Your task to perform on an android device: all mails in gmail Image 0: 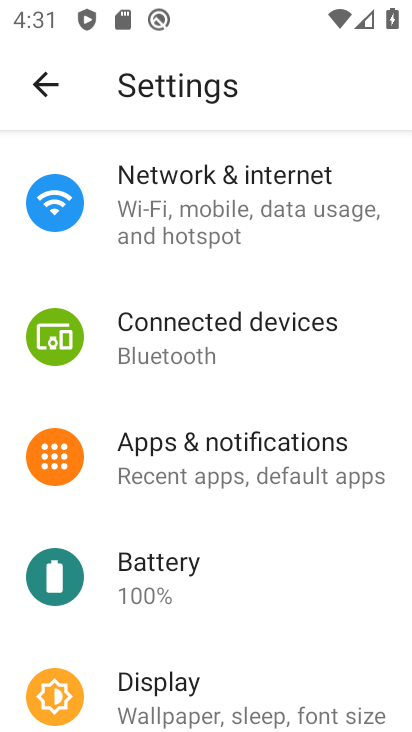
Step 0: press back button
Your task to perform on an android device: all mails in gmail Image 1: 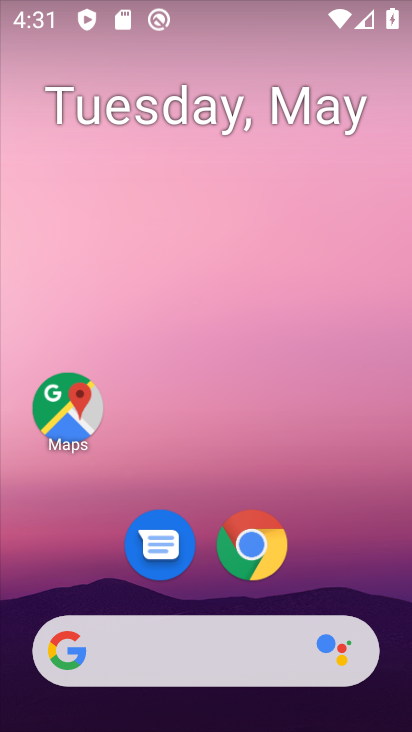
Step 1: drag from (341, 485) to (230, 1)
Your task to perform on an android device: all mails in gmail Image 2: 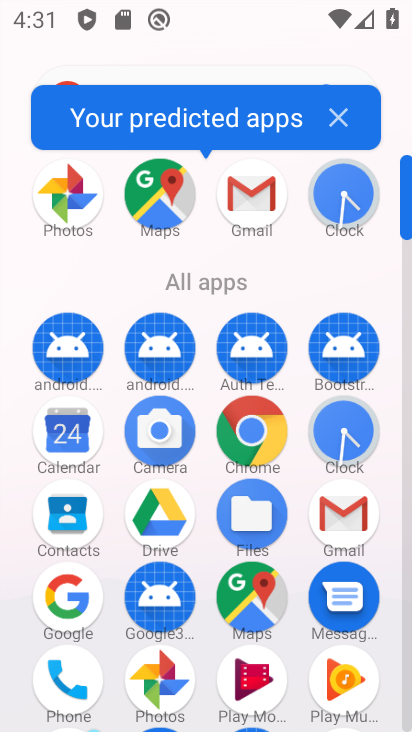
Step 2: click (257, 187)
Your task to perform on an android device: all mails in gmail Image 3: 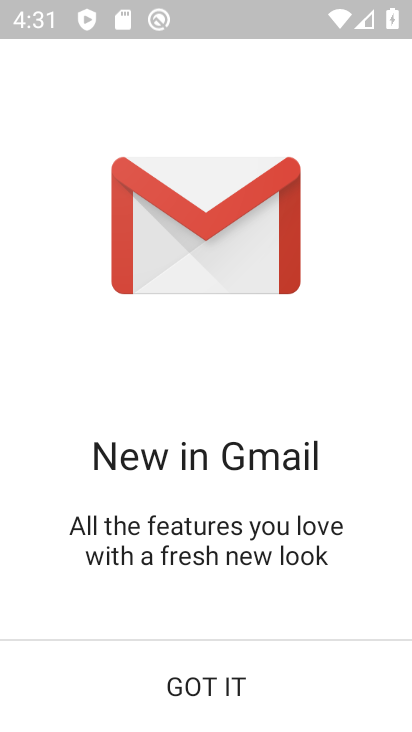
Step 3: click (244, 679)
Your task to perform on an android device: all mails in gmail Image 4: 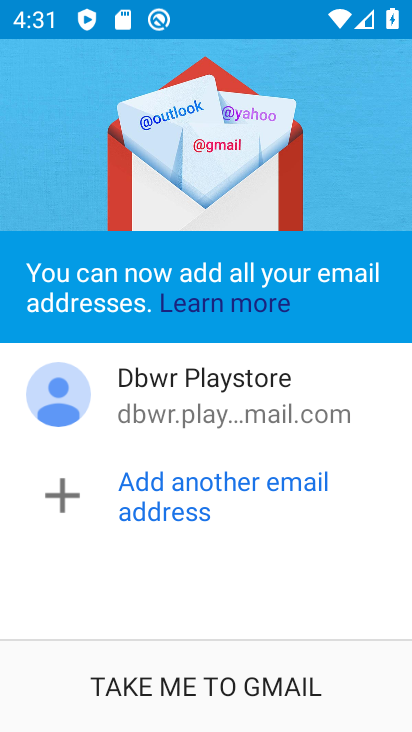
Step 4: click (215, 682)
Your task to perform on an android device: all mails in gmail Image 5: 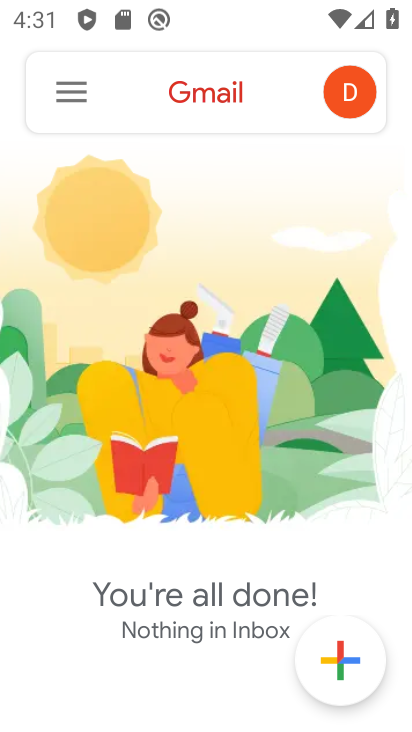
Step 5: click (68, 76)
Your task to perform on an android device: all mails in gmail Image 6: 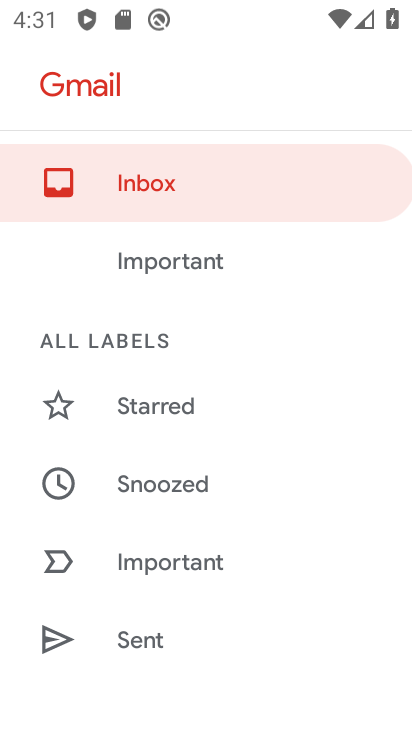
Step 6: drag from (239, 619) to (219, 193)
Your task to perform on an android device: all mails in gmail Image 7: 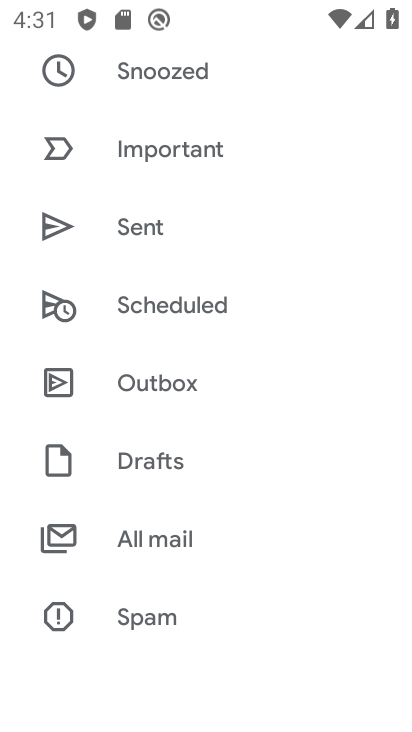
Step 7: drag from (204, 548) to (204, 465)
Your task to perform on an android device: all mails in gmail Image 8: 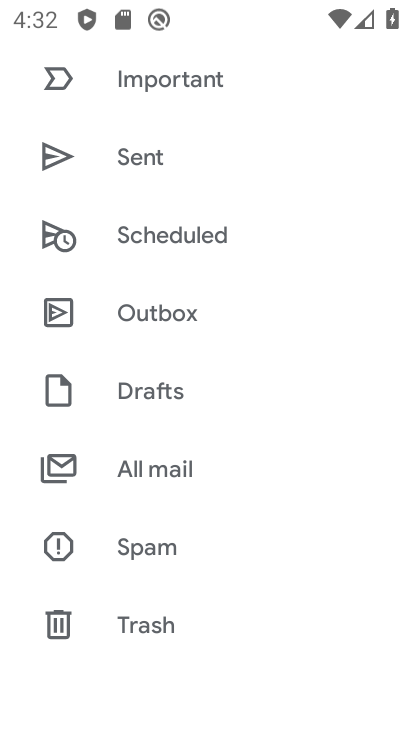
Step 8: click (184, 471)
Your task to perform on an android device: all mails in gmail Image 9: 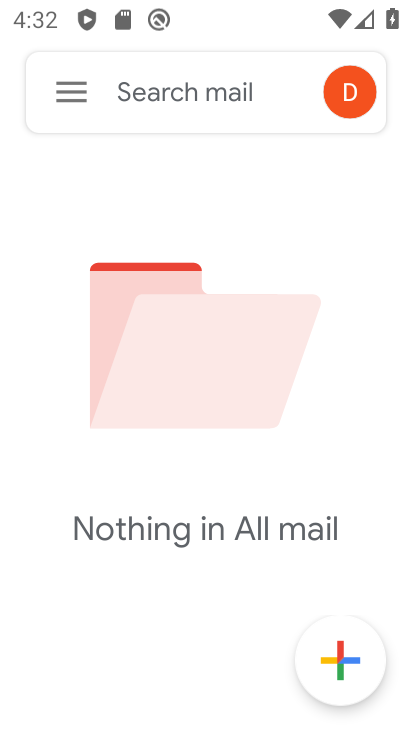
Step 9: task complete